Your task to perform on an android device: Open location settings Image 0: 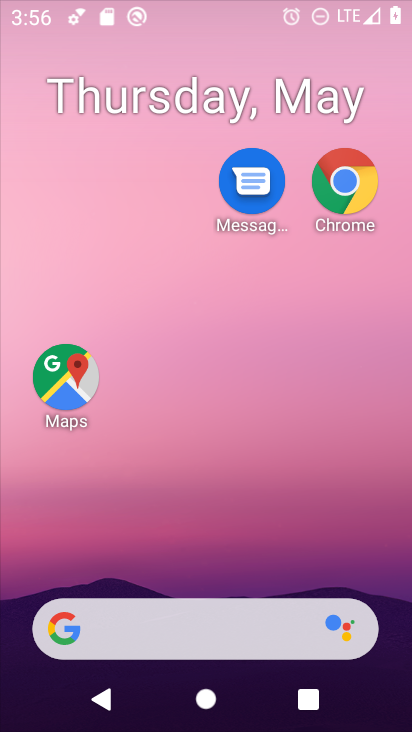
Step 0: drag from (316, 612) to (335, 9)
Your task to perform on an android device: Open location settings Image 1: 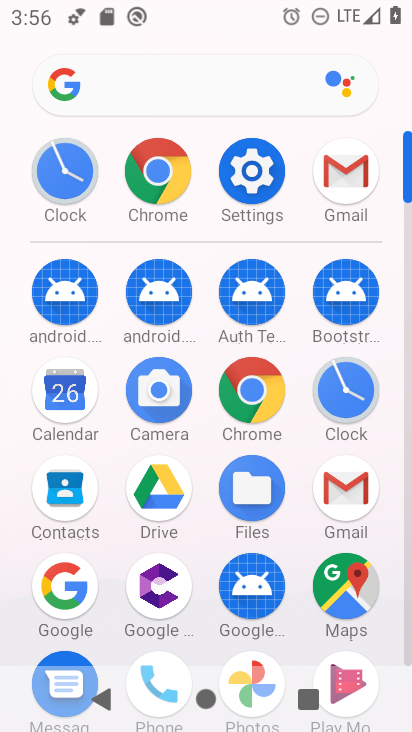
Step 1: click (272, 159)
Your task to perform on an android device: Open location settings Image 2: 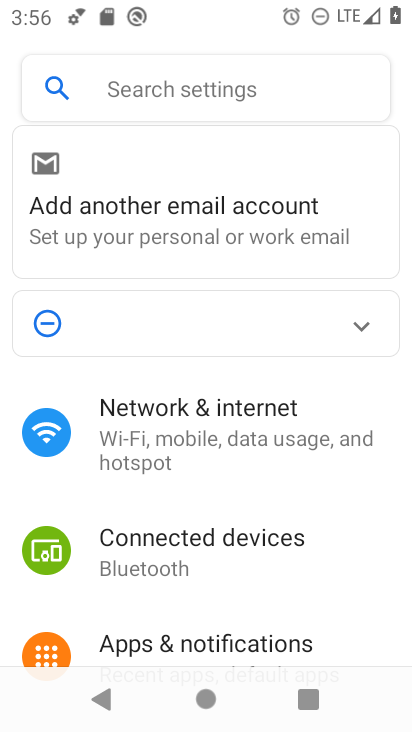
Step 2: drag from (239, 612) to (249, 76)
Your task to perform on an android device: Open location settings Image 3: 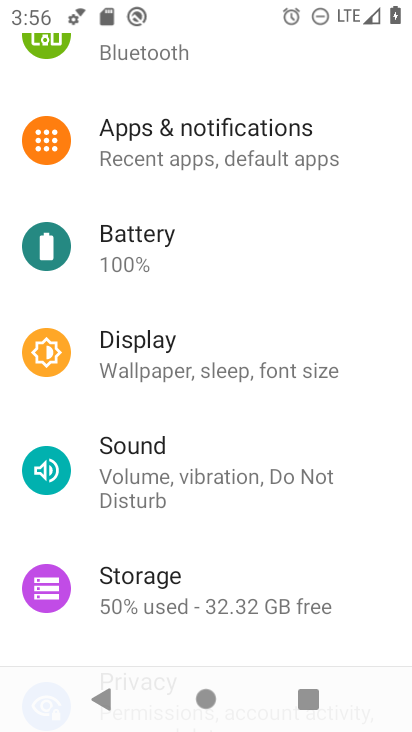
Step 3: drag from (244, 617) to (259, 141)
Your task to perform on an android device: Open location settings Image 4: 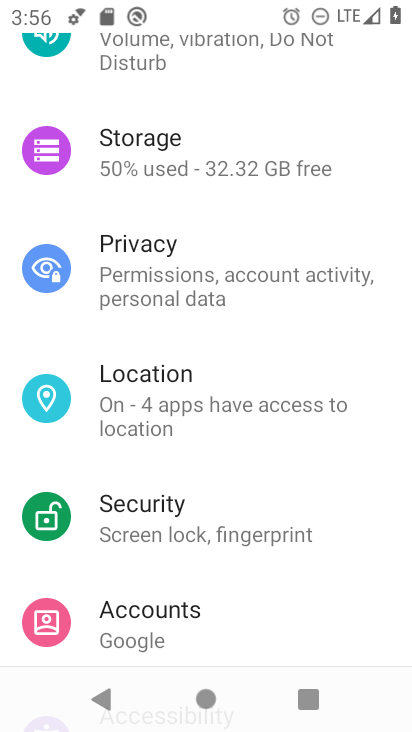
Step 4: click (204, 405)
Your task to perform on an android device: Open location settings Image 5: 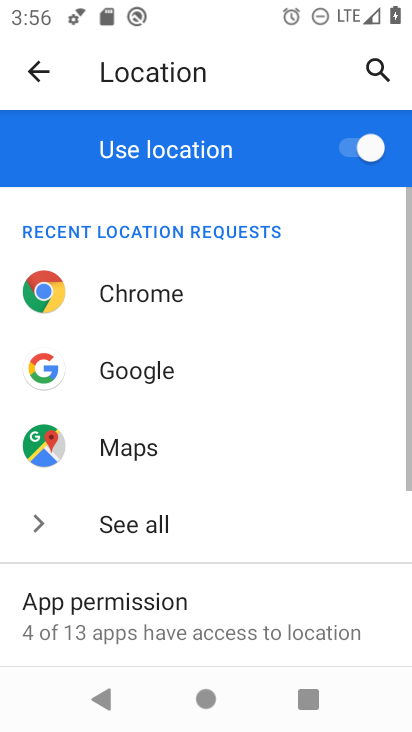
Step 5: task complete